Your task to perform on an android device: allow cookies in the chrome app Image 0: 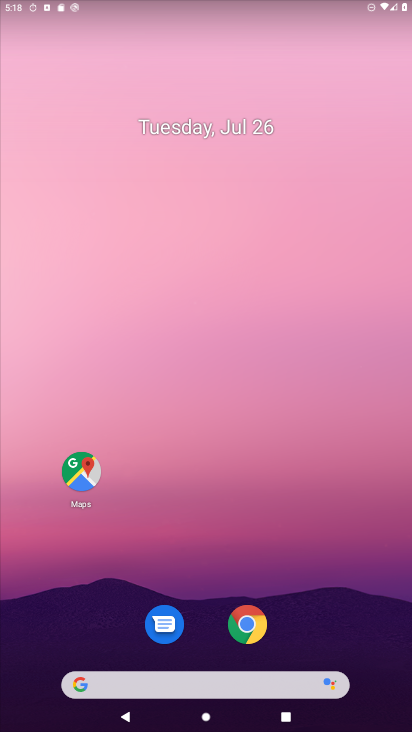
Step 0: drag from (253, 598) to (271, 1)
Your task to perform on an android device: allow cookies in the chrome app Image 1: 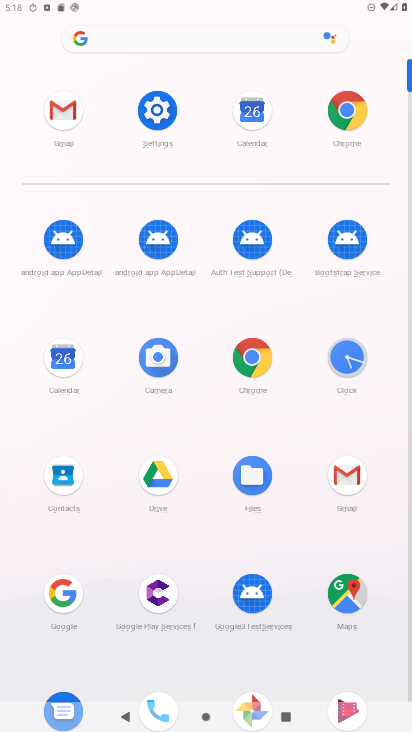
Step 1: click (255, 370)
Your task to perform on an android device: allow cookies in the chrome app Image 2: 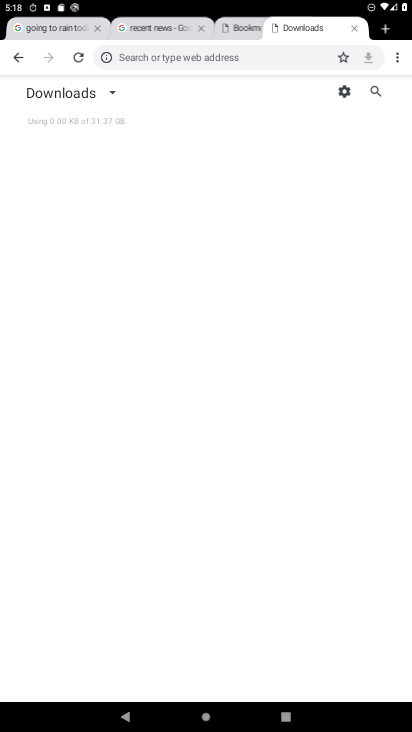
Step 2: press home button
Your task to perform on an android device: allow cookies in the chrome app Image 3: 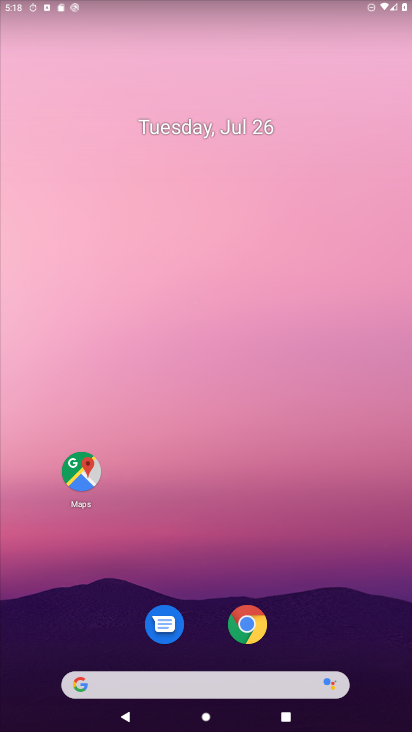
Step 3: drag from (306, 669) to (294, 22)
Your task to perform on an android device: allow cookies in the chrome app Image 4: 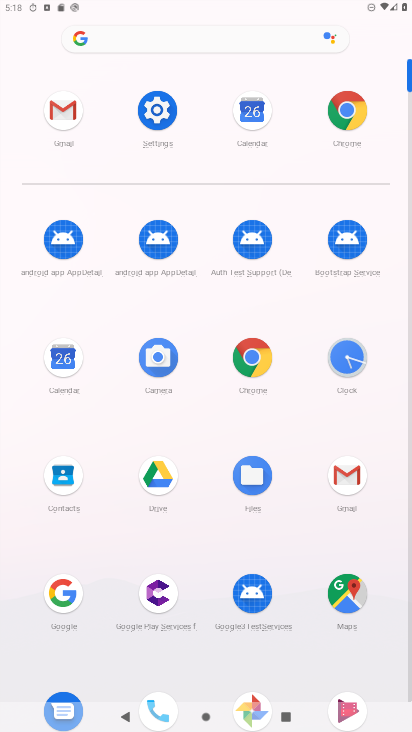
Step 4: click (252, 360)
Your task to perform on an android device: allow cookies in the chrome app Image 5: 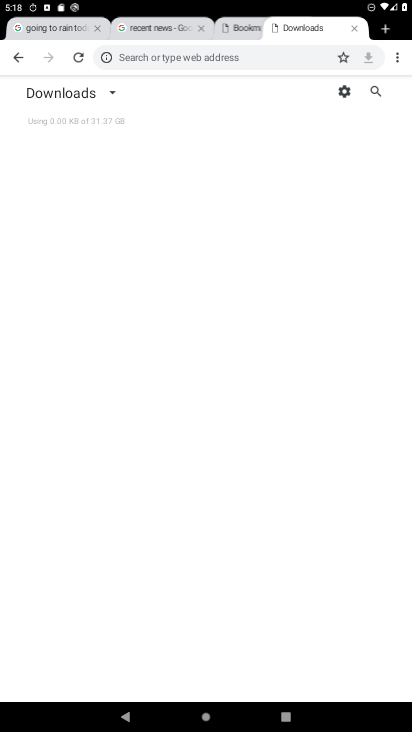
Step 5: click (402, 61)
Your task to perform on an android device: allow cookies in the chrome app Image 6: 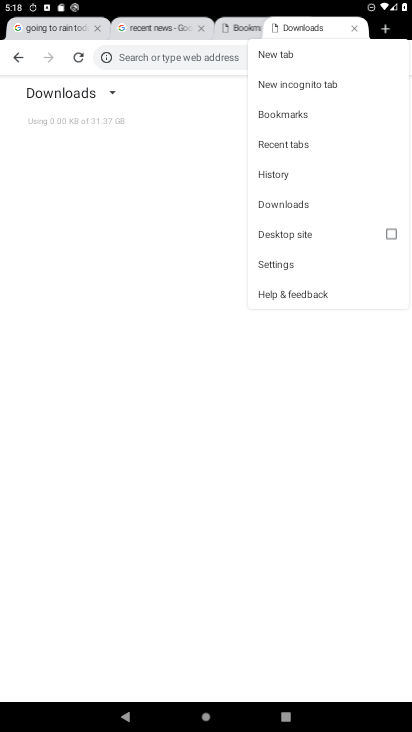
Step 6: click (302, 264)
Your task to perform on an android device: allow cookies in the chrome app Image 7: 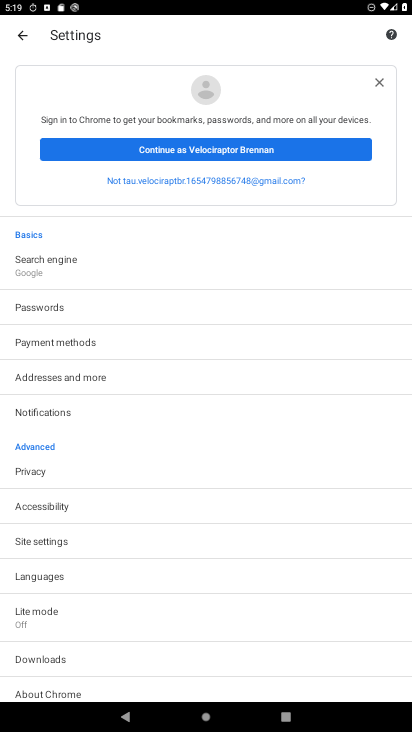
Step 7: click (57, 534)
Your task to perform on an android device: allow cookies in the chrome app Image 8: 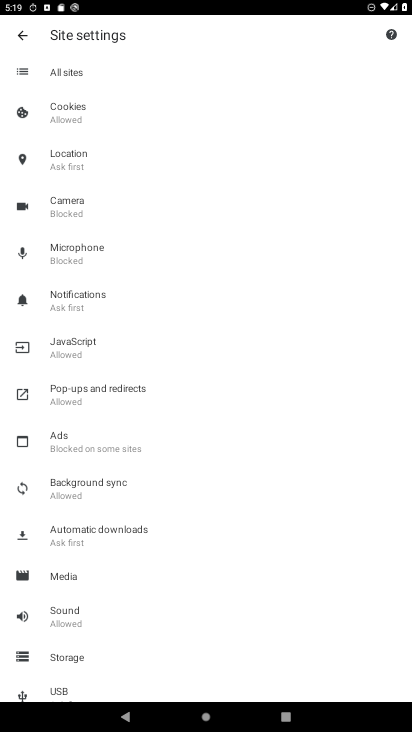
Step 8: click (86, 117)
Your task to perform on an android device: allow cookies in the chrome app Image 9: 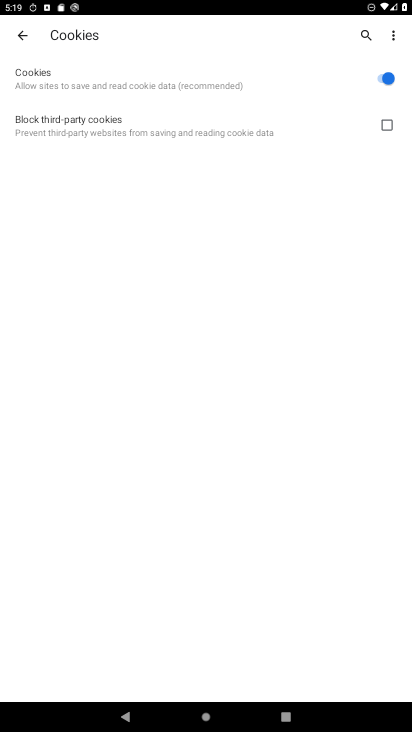
Step 9: task complete